Your task to perform on an android device: Open ESPN.com Image 0: 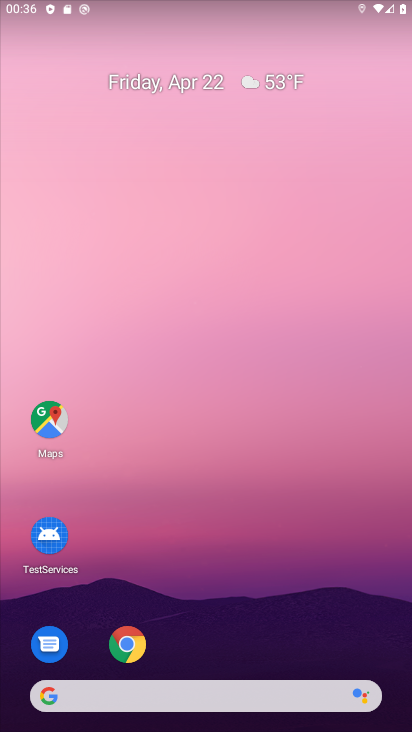
Step 0: drag from (296, 623) to (395, 60)
Your task to perform on an android device: Open ESPN.com Image 1: 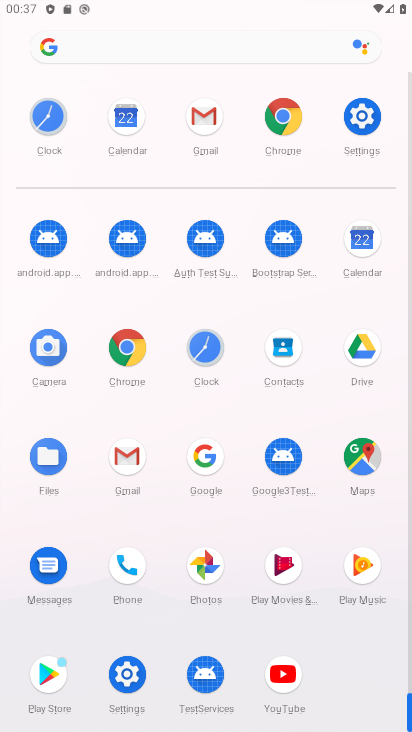
Step 1: click (294, 247)
Your task to perform on an android device: Open ESPN.com Image 2: 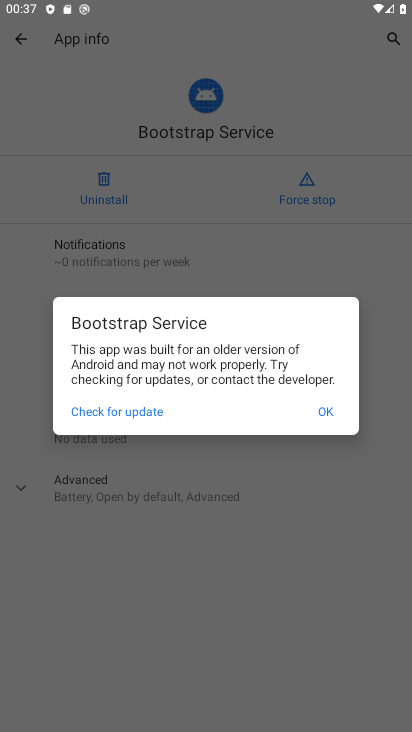
Step 2: press home button
Your task to perform on an android device: Open ESPN.com Image 3: 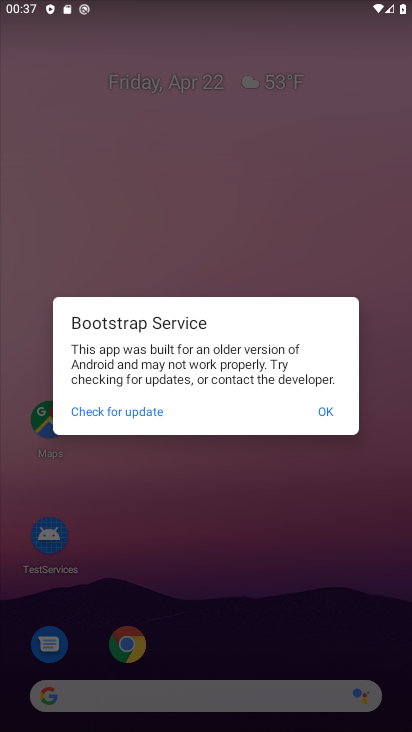
Step 3: click (336, 413)
Your task to perform on an android device: Open ESPN.com Image 4: 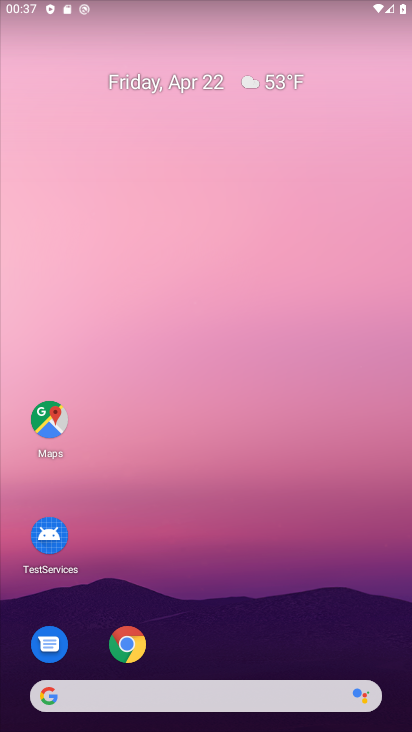
Step 4: drag from (293, 459) to (276, 140)
Your task to perform on an android device: Open ESPN.com Image 5: 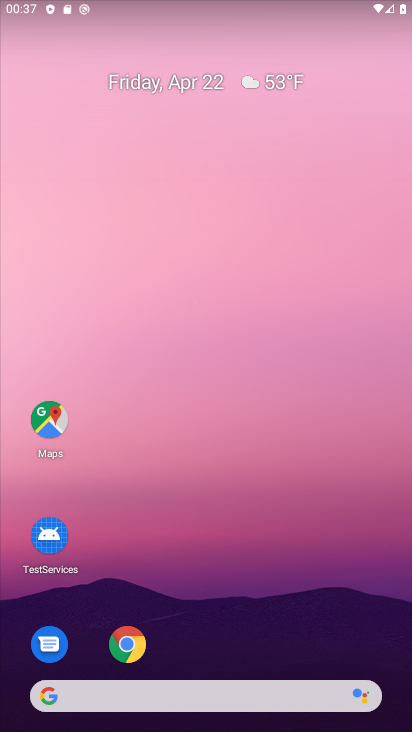
Step 5: drag from (278, 504) to (240, 83)
Your task to perform on an android device: Open ESPN.com Image 6: 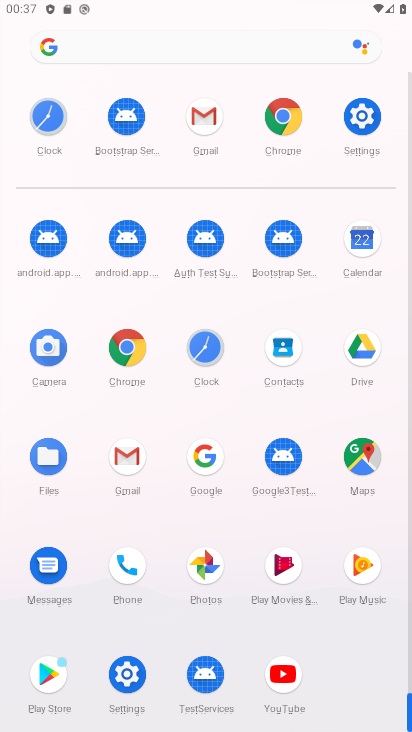
Step 6: click (131, 341)
Your task to perform on an android device: Open ESPN.com Image 7: 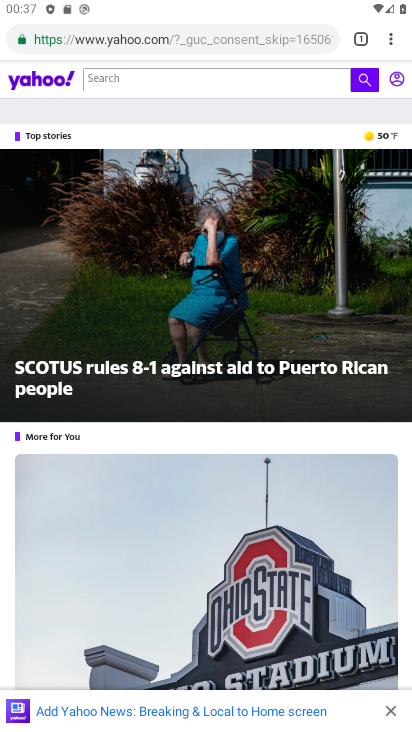
Step 7: click (212, 37)
Your task to perform on an android device: Open ESPN.com Image 8: 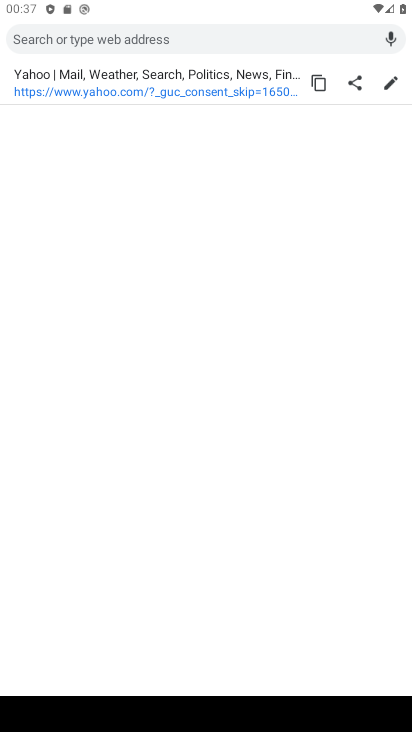
Step 8: type "espn.com"
Your task to perform on an android device: Open ESPN.com Image 9: 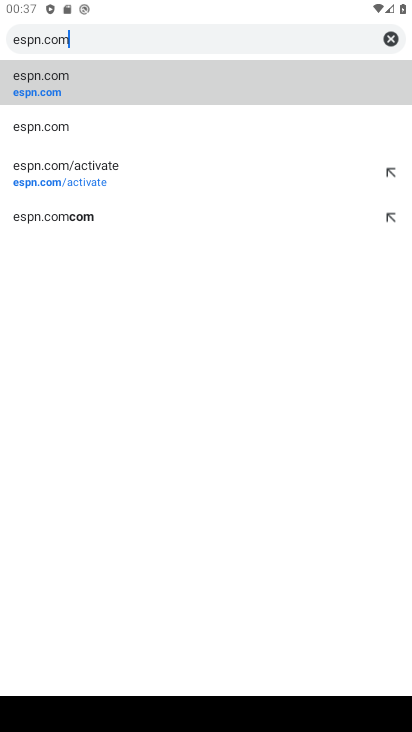
Step 9: click (23, 93)
Your task to perform on an android device: Open ESPN.com Image 10: 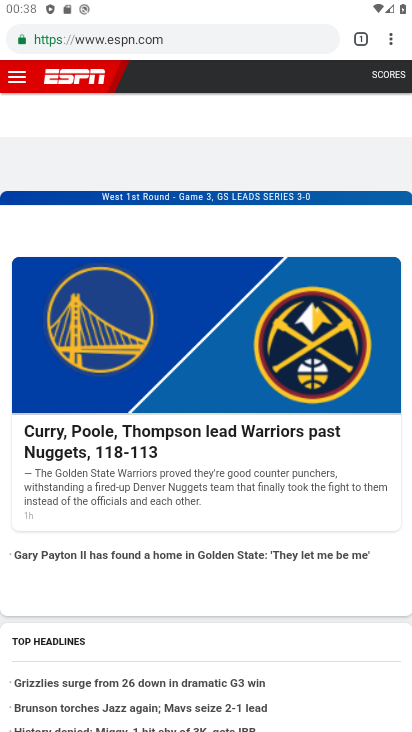
Step 10: task complete